Your task to perform on an android device: Search for seafood restaurants on Google Maps Image 0: 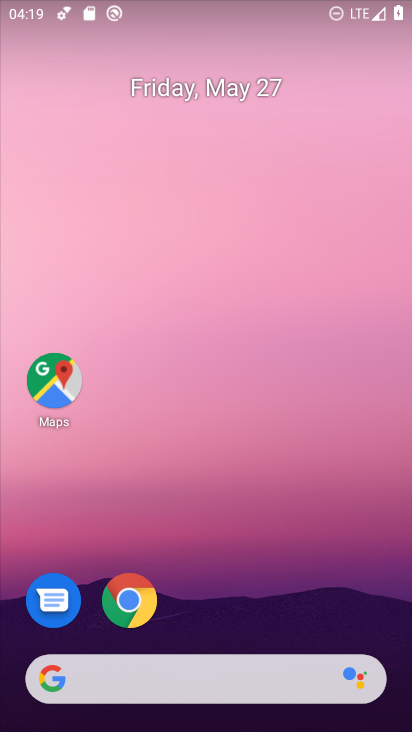
Step 0: drag from (200, 727) to (205, 172)
Your task to perform on an android device: Search for seafood restaurants on Google Maps Image 1: 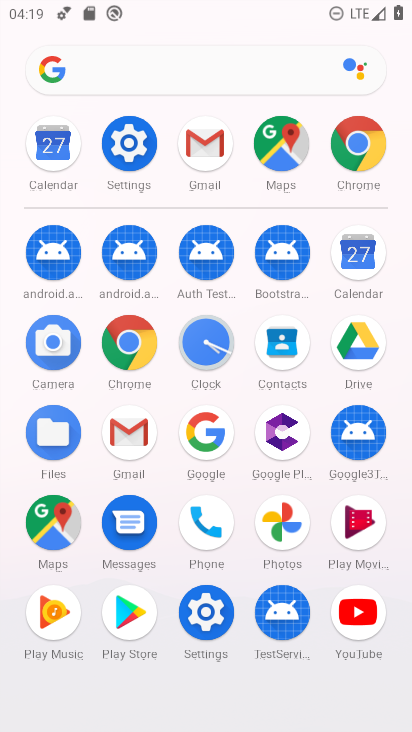
Step 1: click (56, 519)
Your task to perform on an android device: Search for seafood restaurants on Google Maps Image 2: 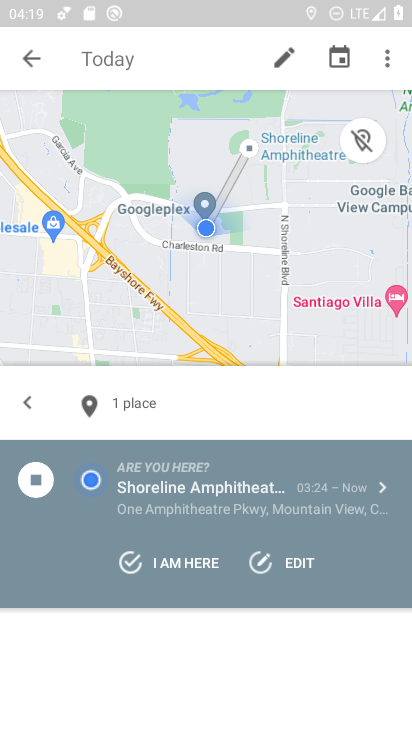
Step 2: click (27, 59)
Your task to perform on an android device: Search for seafood restaurants on Google Maps Image 3: 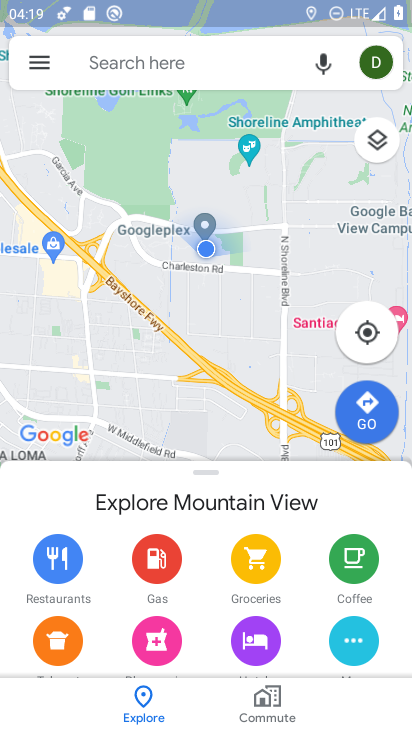
Step 3: click (185, 67)
Your task to perform on an android device: Search for seafood restaurants on Google Maps Image 4: 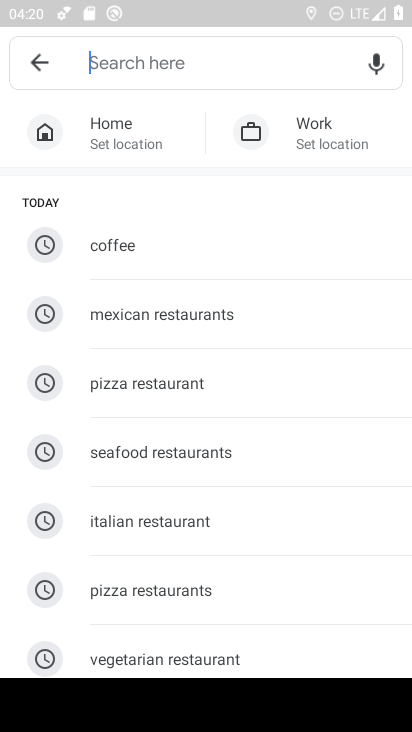
Step 4: type "seafood restaurants "
Your task to perform on an android device: Search for seafood restaurants on Google Maps Image 5: 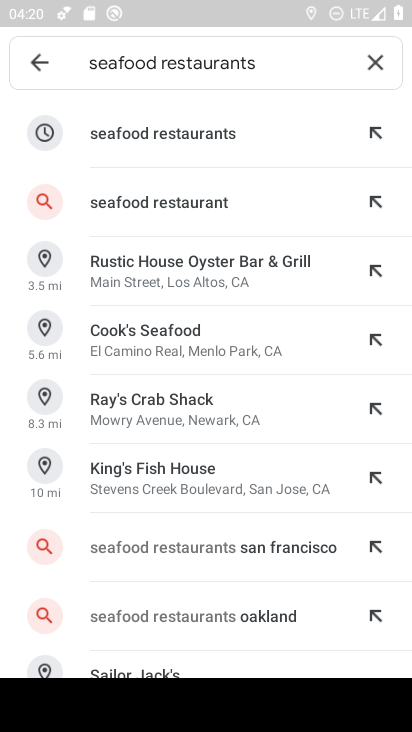
Step 5: click (157, 134)
Your task to perform on an android device: Search for seafood restaurants on Google Maps Image 6: 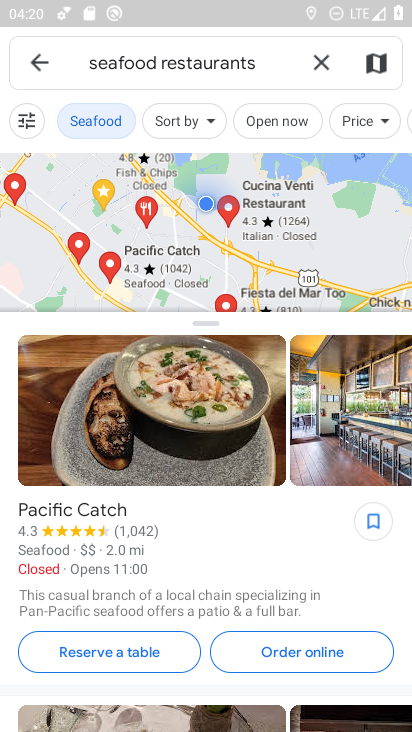
Step 6: task complete